Your task to perform on an android device: toggle sleep mode Image 0: 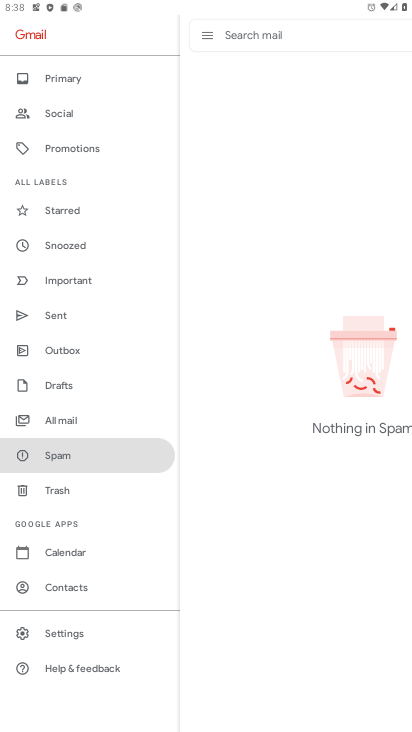
Step 0: press home button
Your task to perform on an android device: toggle sleep mode Image 1: 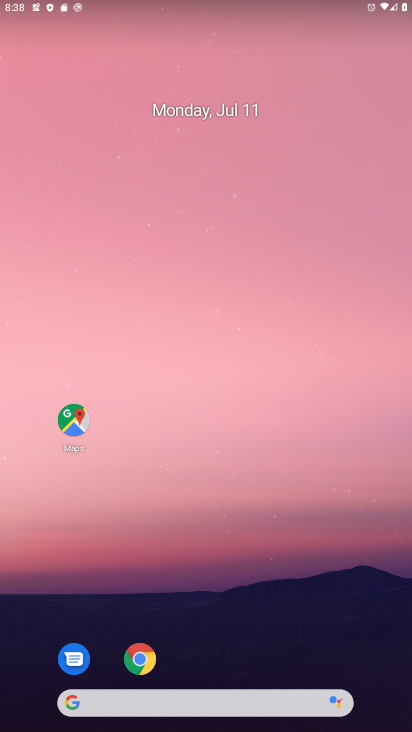
Step 1: drag from (246, 607) to (207, 79)
Your task to perform on an android device: toggle sleep mode Image 2: 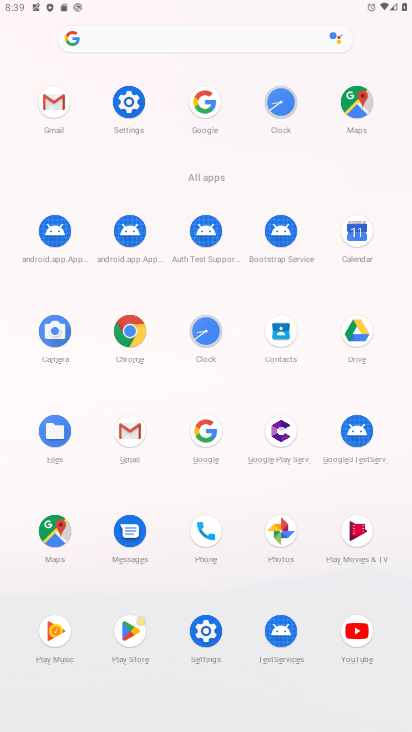
Step 2: click (125, 96)
Your task to perform on an android device: toggle sleep mode Image 3: 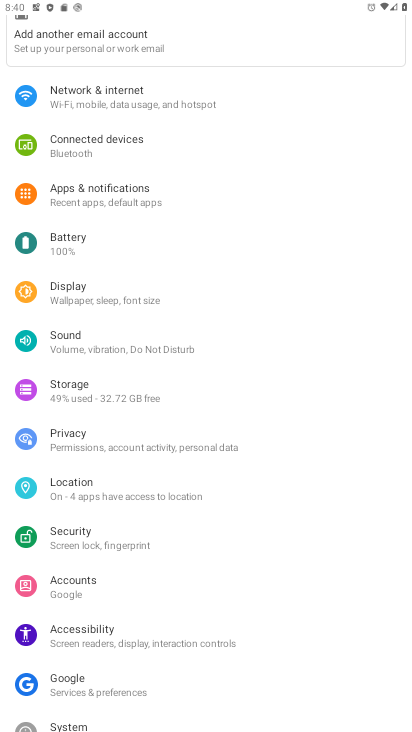
Step 3: click (70, 290)
Your task to perform on an android device: toggle sleep mode Image 4: 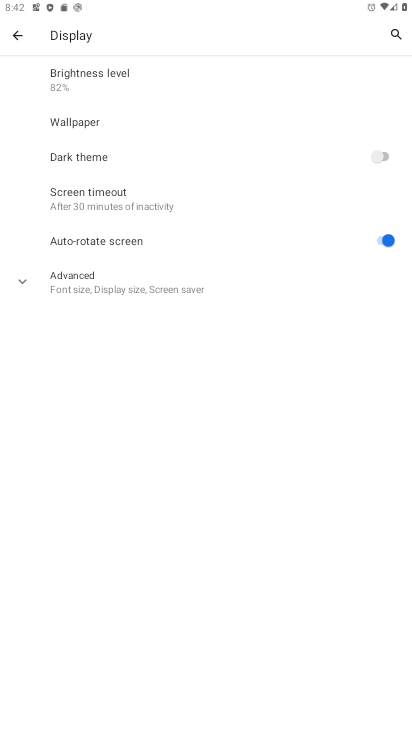
Step 4: task complete